Your task to perform on an android device: Go to Google maps Image 0: 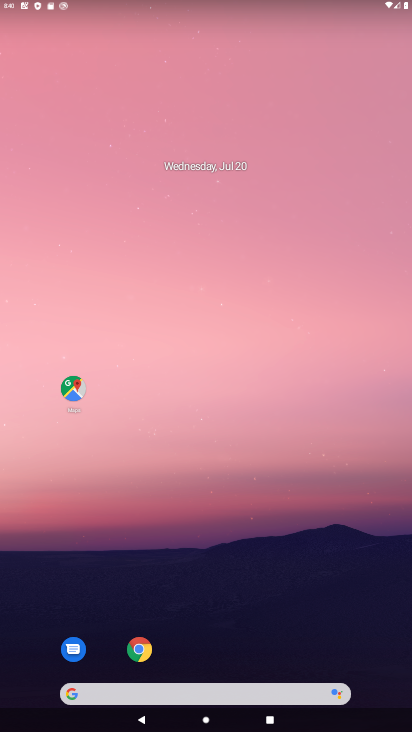
Step 0: click (65, 393)
Your task to perform on an android device: Go to Google maps Image 1: 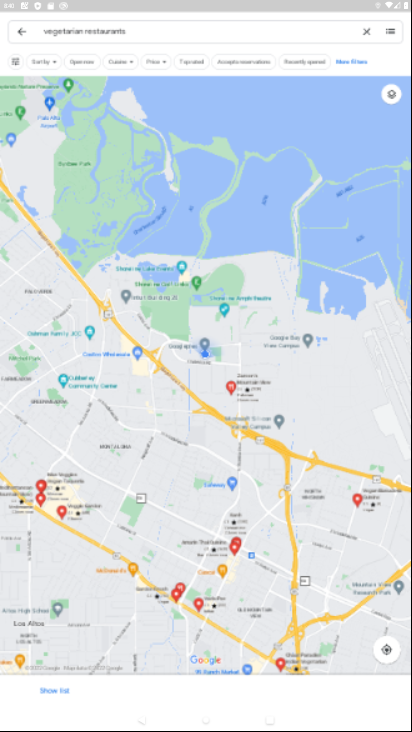
Step 1: click (257, 22)
Your task to perform on an android device: Go to Google maps Image 2: 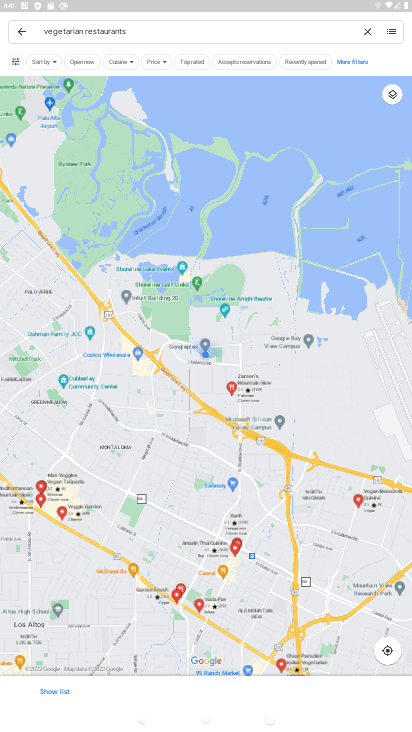
Step 2: task complete